Your task to perform on an android device: delete browsing data in the chrome app Image 0: 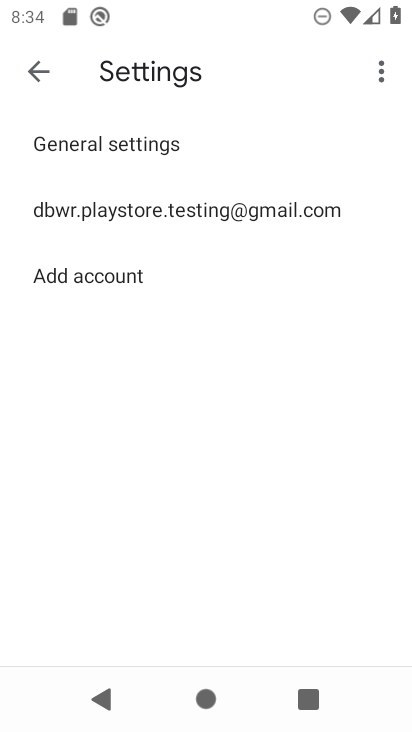
Step 0: press home button
Your task to perform on an android device: delete browsing data in the chrome app Image 1: 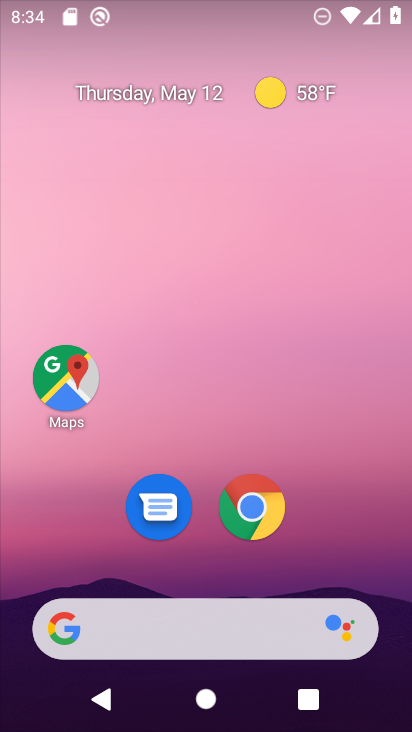
Step 1: click (247, 509)
Your task to perform on an android device: delete browsing data in the chrome app Image 2: 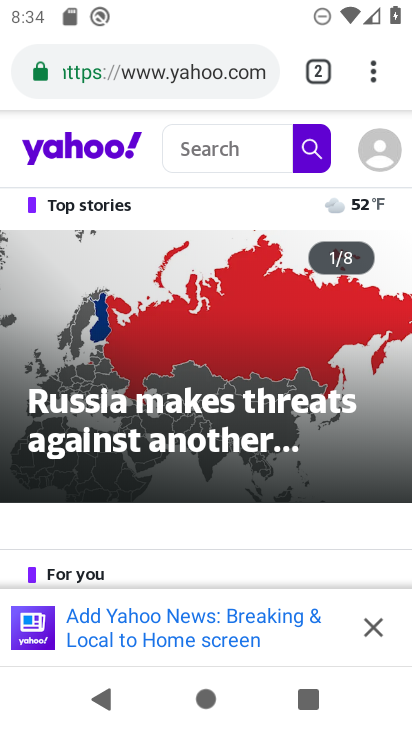
Step 2: drag from (371, 70) to (129, 389)
Your task to perform on an android device: delete browsing data in the chrome app Image 3: 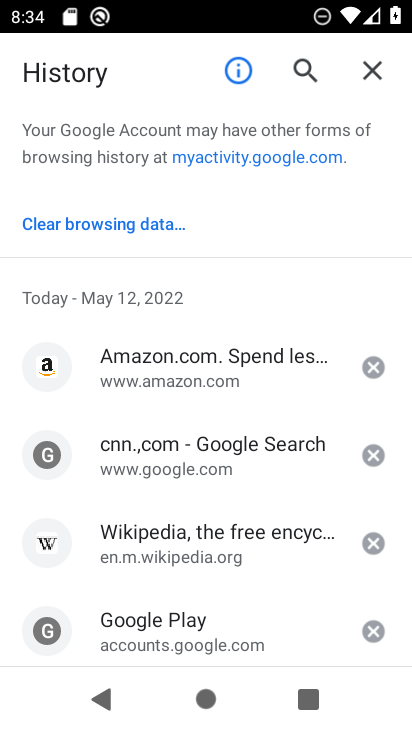
Step 3: click (126, 224)
Your task to perform on an android device: delete browsing data in the chrome app Image 4: 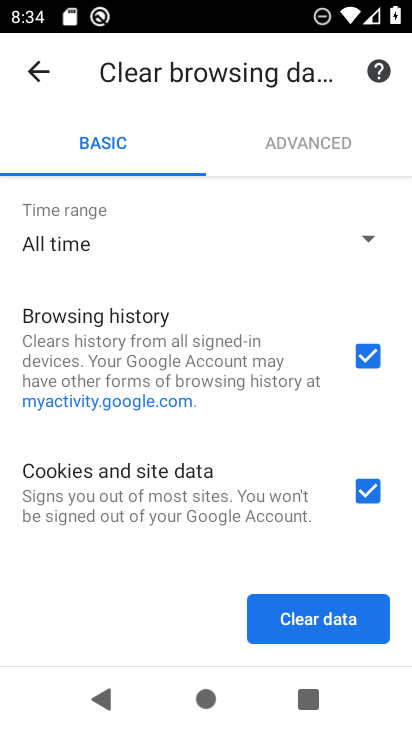
Step 4: click (330, 620)
Your task to perform on an android device: delete browsing data in the chrome app Image 5: 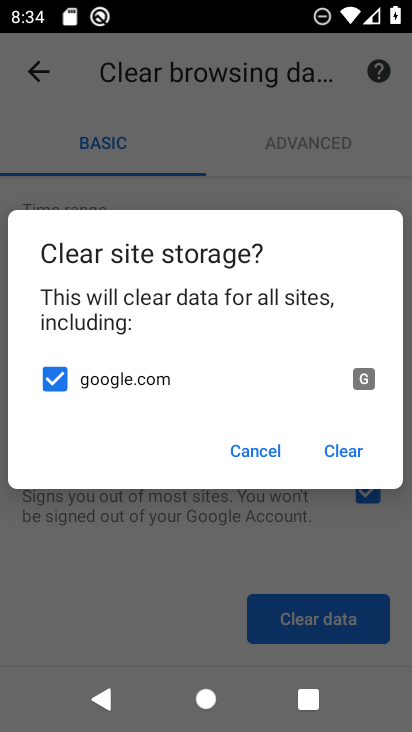
Step 5: click (338, 450)
Your task to perform on an android device: delete browsing data in the chrome app Image 6: 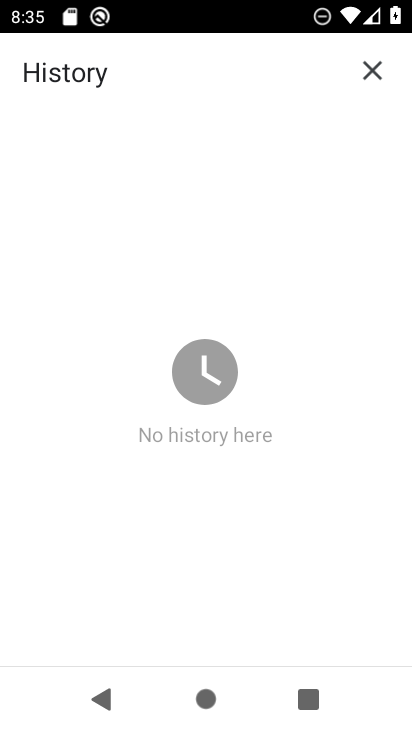
Step 6: task complete